Your task to perform on an android device: open wifi settings Image 0: 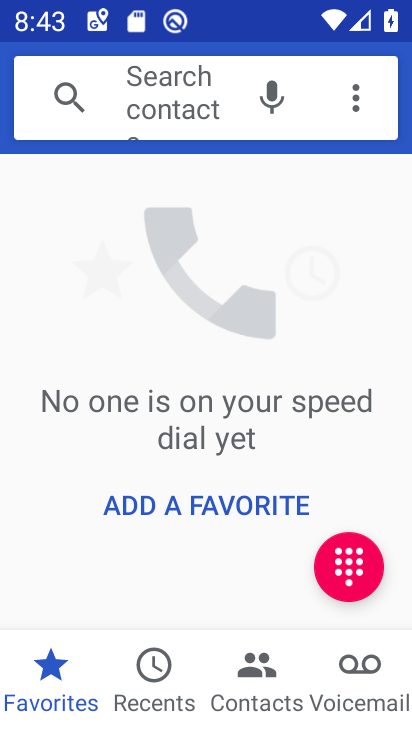
Step 0: press back button
Your task to perform on an android device: open wifi settings Image 1: 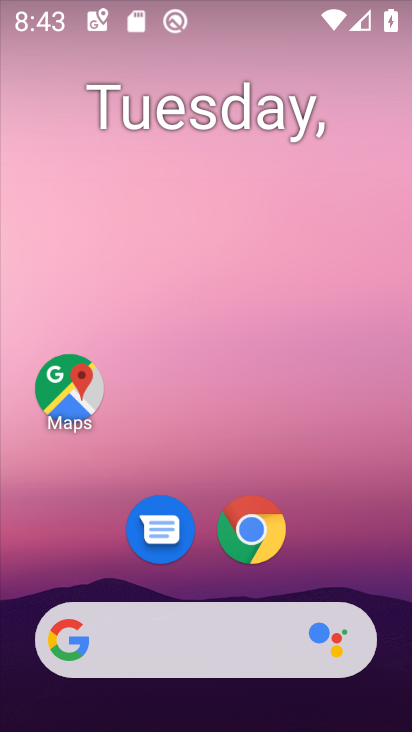
Step 1: drag from (92, 17) to (161, 417)
Your task to perform on an android device: open wifi settings Image 2: 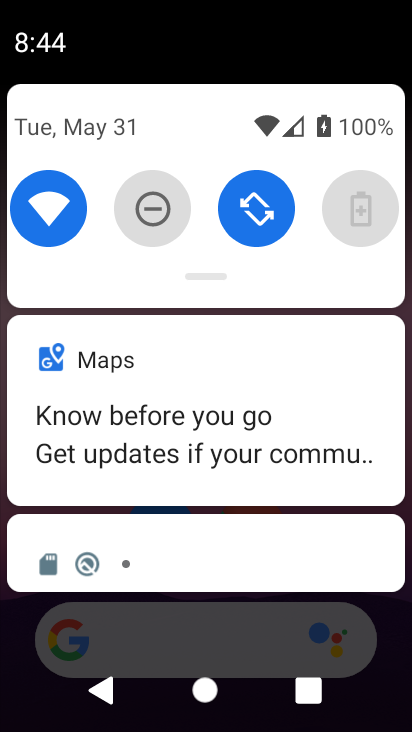
Step 2: click (53, 213)
Your task to perform on an android device: open wifi settings Image 3: 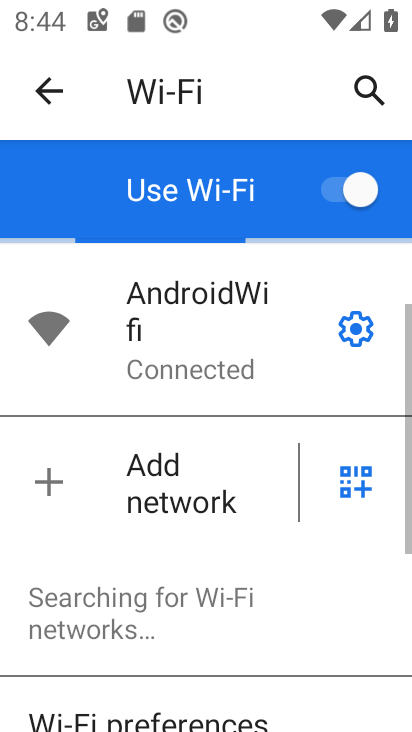
Step 3: task complete